Your task to perform on an android device: turn on priority inbox in the gmail app Image 0: 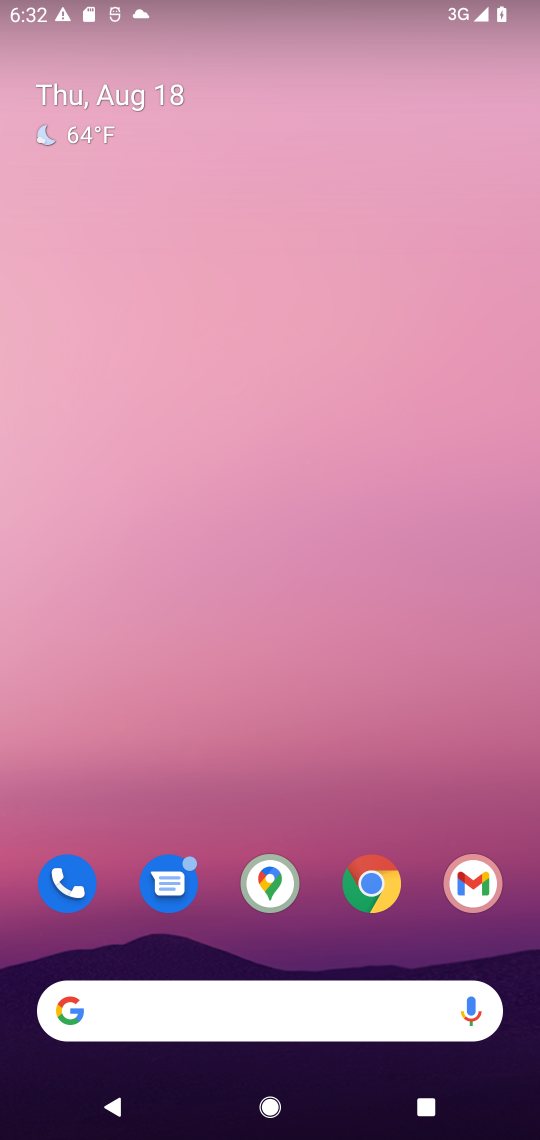
Step 0: click (458, 881)
Your task to perform on an android device: turn on priority inbox in the gmail app Image 1: 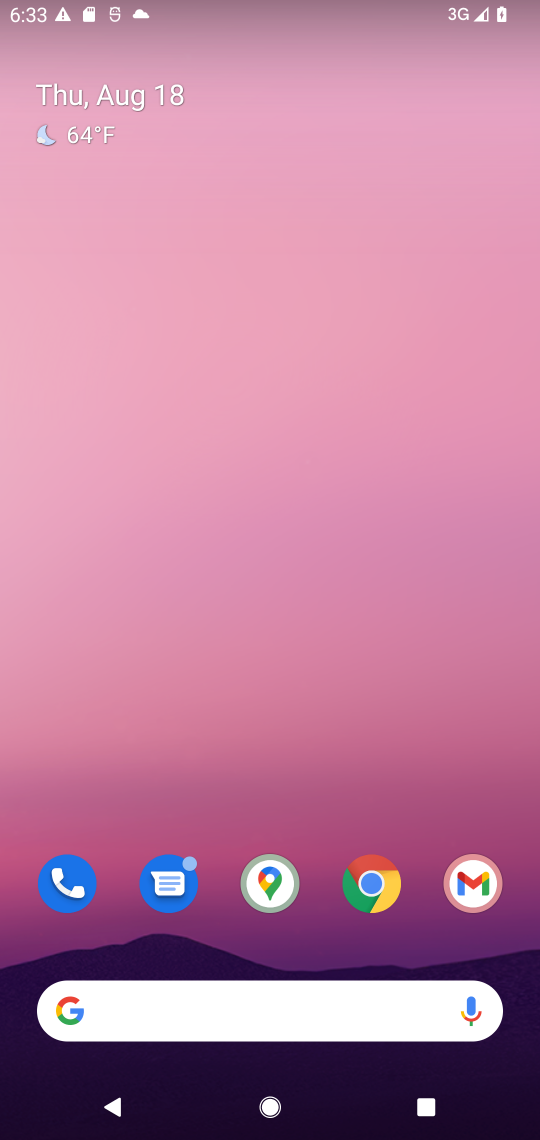
Step 1: click (479, 884)
Your task to perform on an android device: turn on priority inbox in the gmail app Image 2: 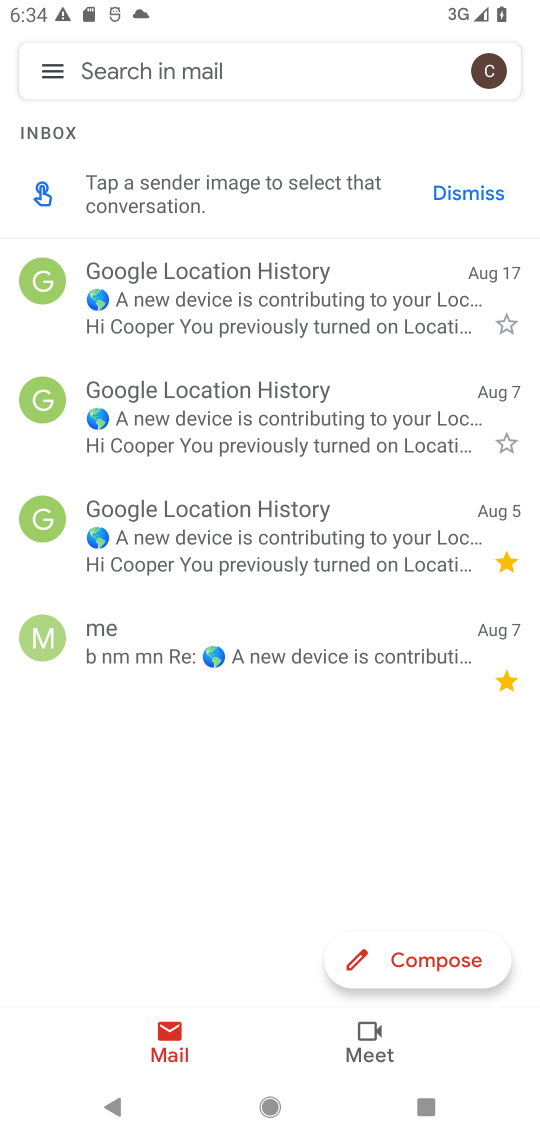
Step 2: click (68, 80)
Your task to perform on an android device: turn on priority inbox in the gmail app Image 3: 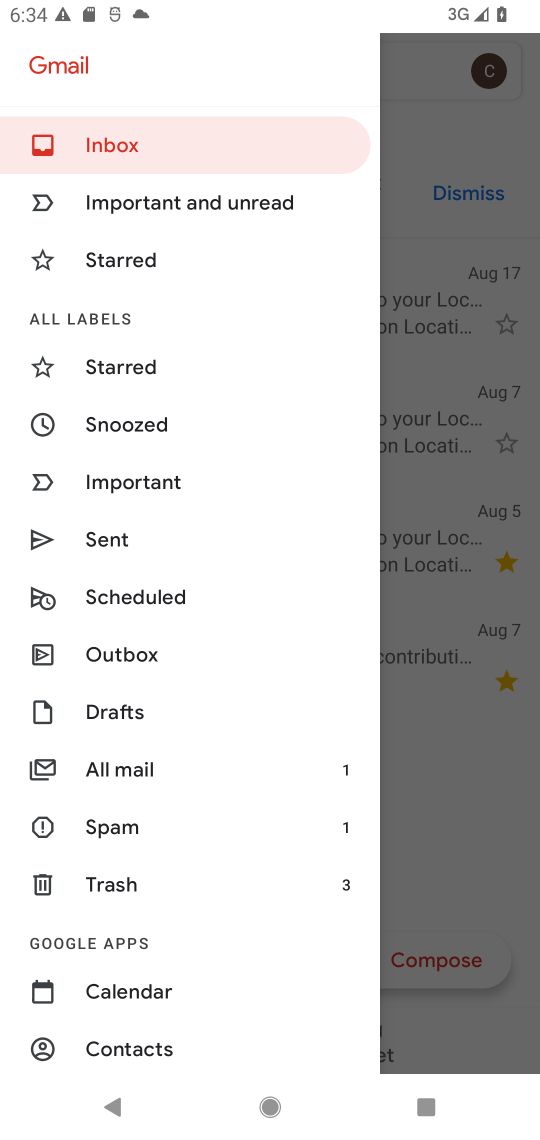
Step 3: drag from (252, 1024) to (254, 630)
Your task to perform on an android device: turn on priority inbox in the gmail app Image 4: 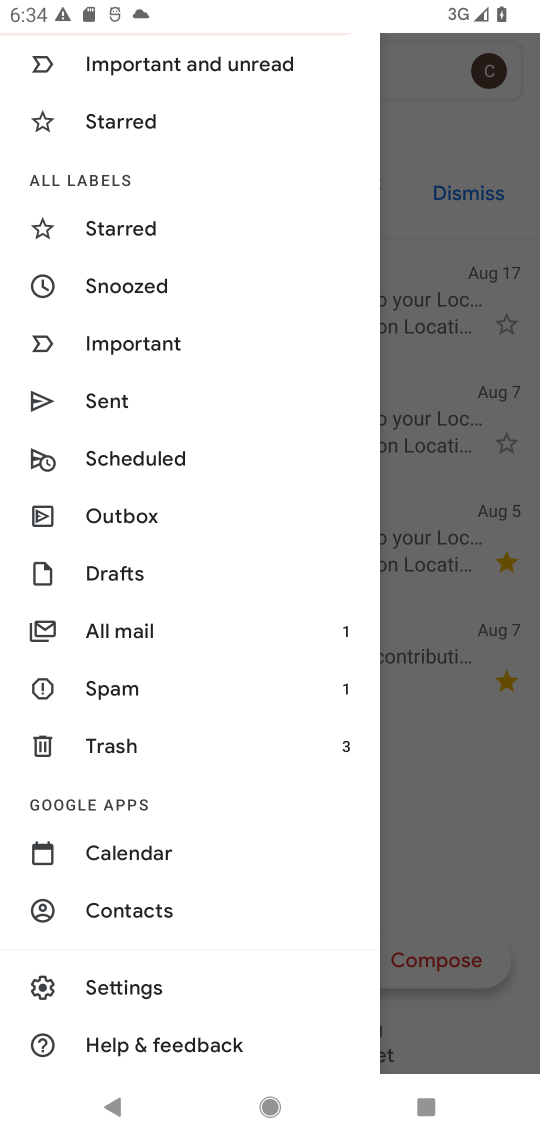
Step 4: click (114, 996)
Your task to perform on an android device: turn on priority inbox in the gmail app Image 5: 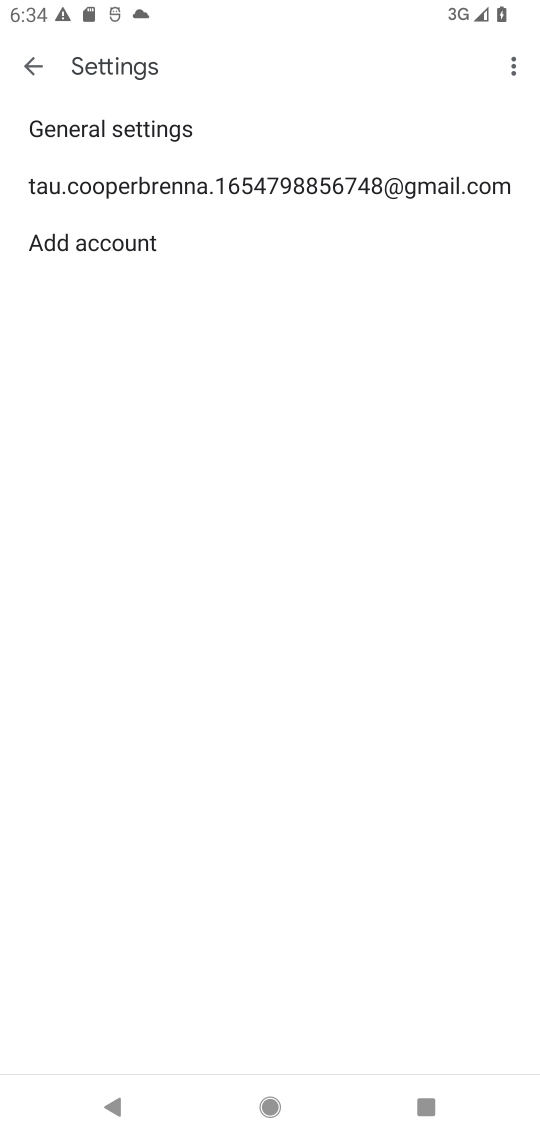
Step 5: click (141, 165)
Your task to perform on an android device: turn on priority inbox in the gmail app Image 6: 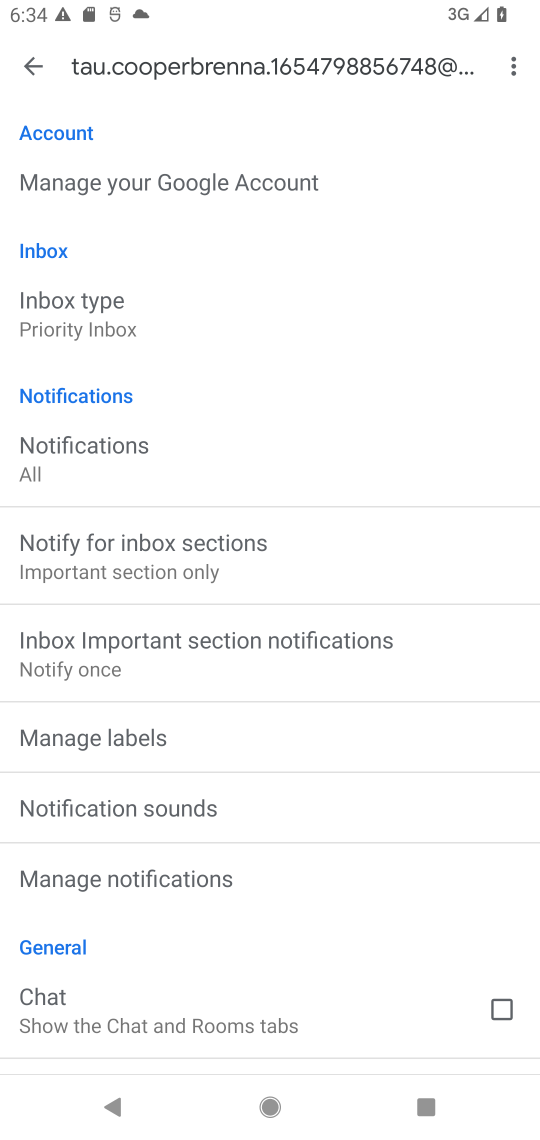
Step 6: task complete